Your task to perform on an android device: turn on the 12-hour format for clock Image 0: 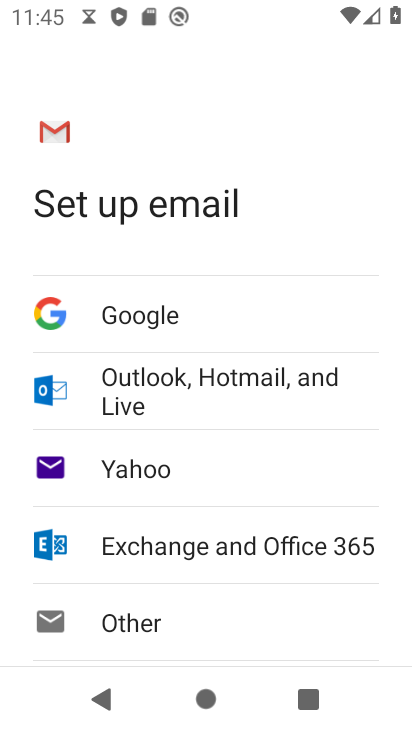
Step 0: press home button
Your task to perform on an android device: turn on the 12-hour format for clock Image 1: 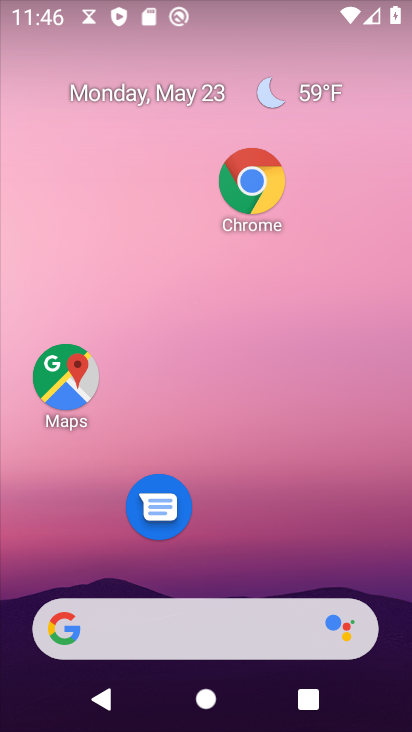
Step 1: drag from (343, 430) to (288, 524)
Your task to perform on an android device: turn on the 12-hour format for clock Image 2: 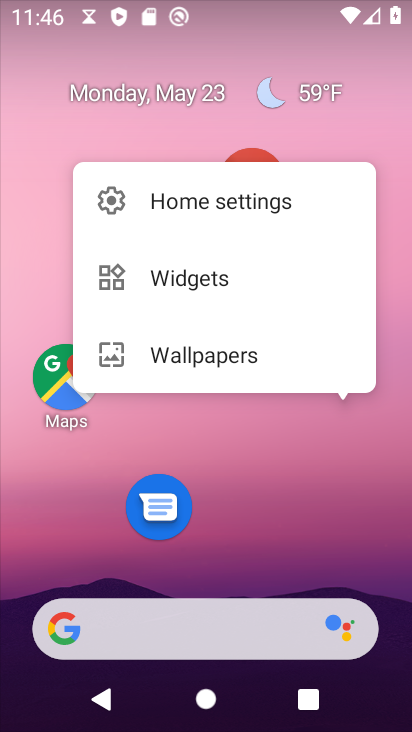
Step 2: click (263, 548)
Your task to perform on an android device: turn on the 12-hour format for clock Image 3: 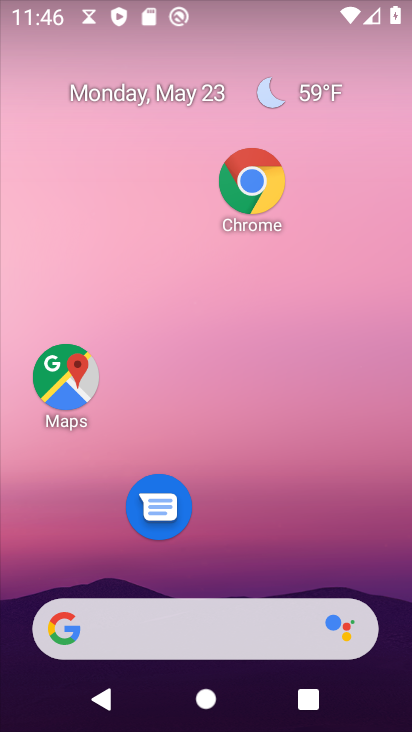
Step 3: click (277, 525)
Your task to perform on an android device: turn on the 12-hour format for clock Image 4: 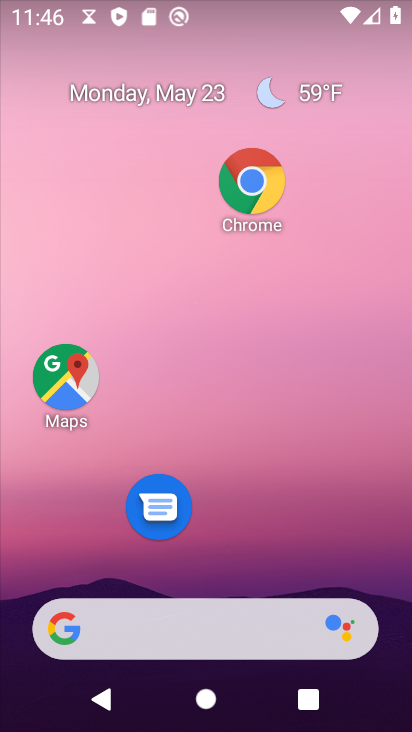
Step 4: drag from (250, 513) to (272, 106)
Your task to perform on an android device: turn on the 12-hour format for clock Image 5: 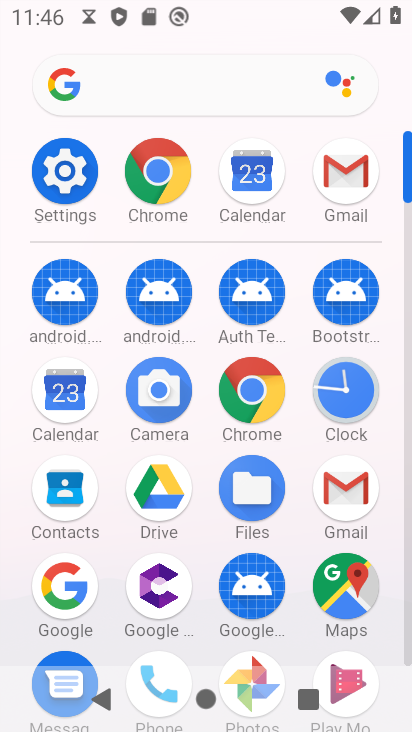
Step 5: click (349, 399)
Your task to perform on an android device: turn on the 12-hour format for clock Image 6: 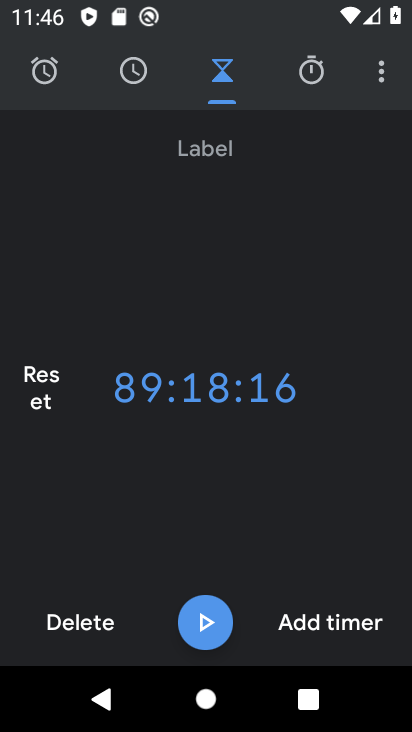
Step 6: click (377, 79)
Your task to perform on an android device: turn on the 12-hour format for clock Image 7: 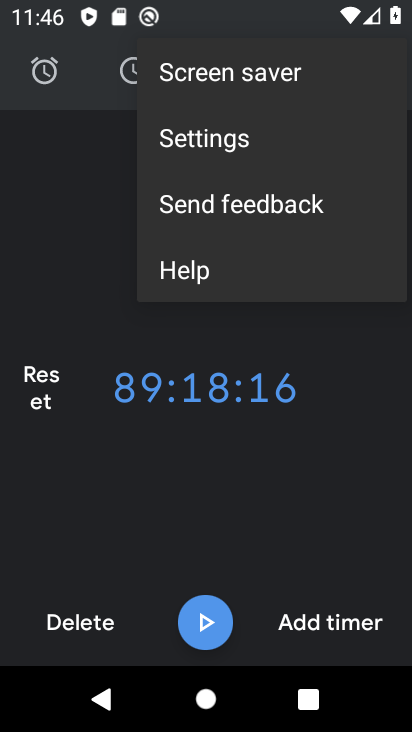
Step 7: click (262, 131)
Your task to perform on an android device: turn on the 12-hour format for clock Image 8: 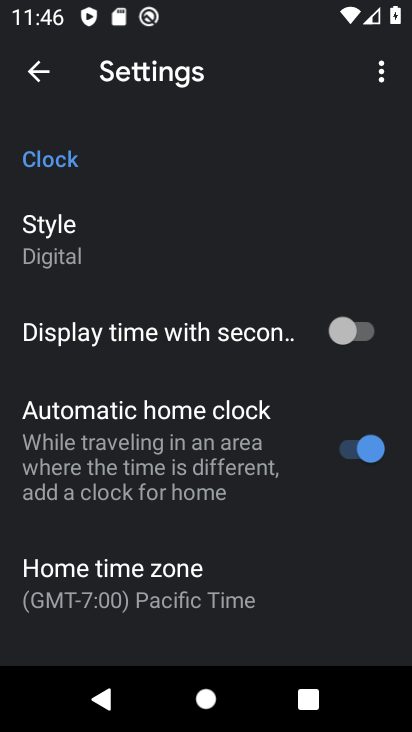
Step 8: drag from (201, 549) to (225, 395)
Your task to perform on an android device: turn on the 12-hour format for clock Image 9: 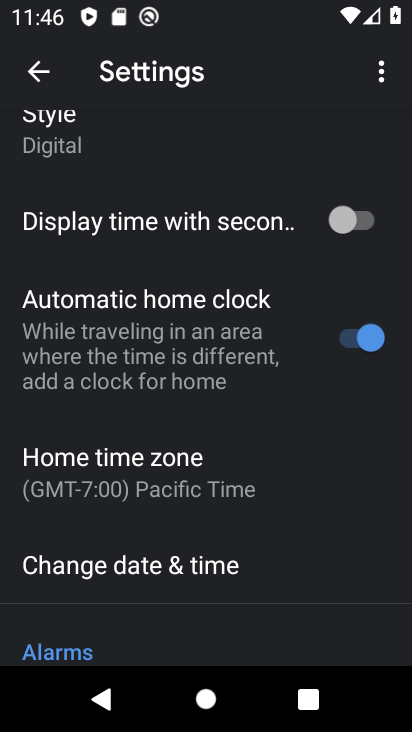
Step 9: click (195, 548)
Your task to perform on an android device: turn on the 12-hour format for clock Image 10: 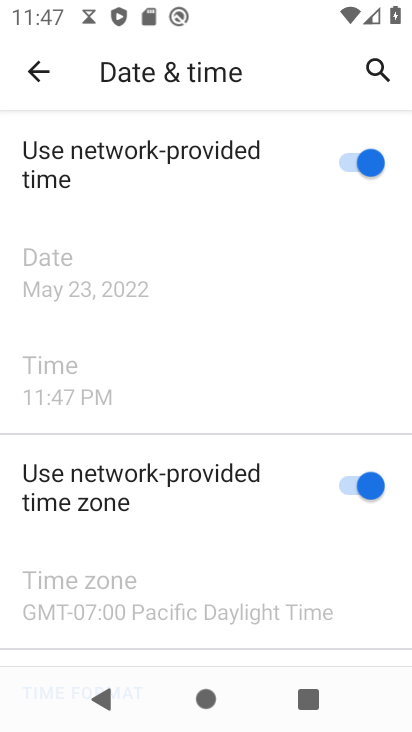
Step 10: drag from (269, 578) to (266, 408)
Your task to perform on an android device: turn on the 12-hour format for clock Image 11: 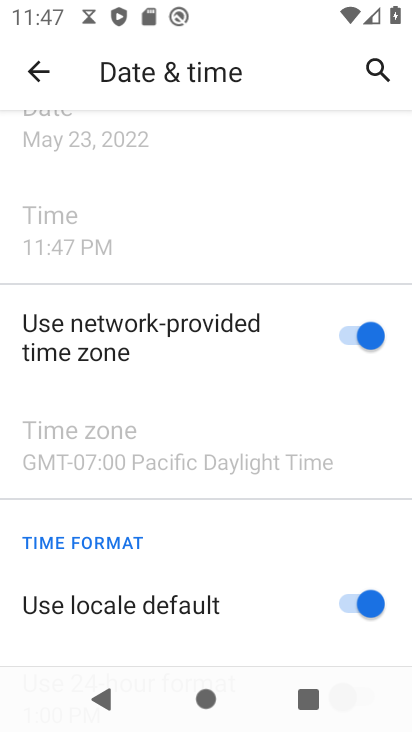
Step 11: drag from (290, 498) to (274, 333)
Your task to perform on an android device: turn on the 12-hour format for clock Image 12: 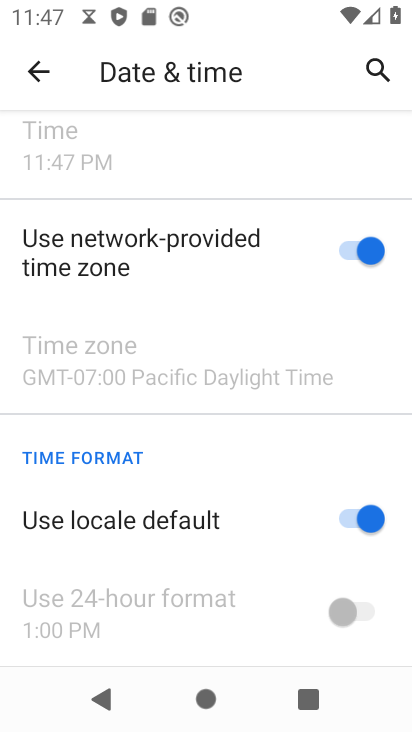
Step 12: click (335, 518)
Your task to perform on an android device: turn on the 12-hour format for clock Image 13: 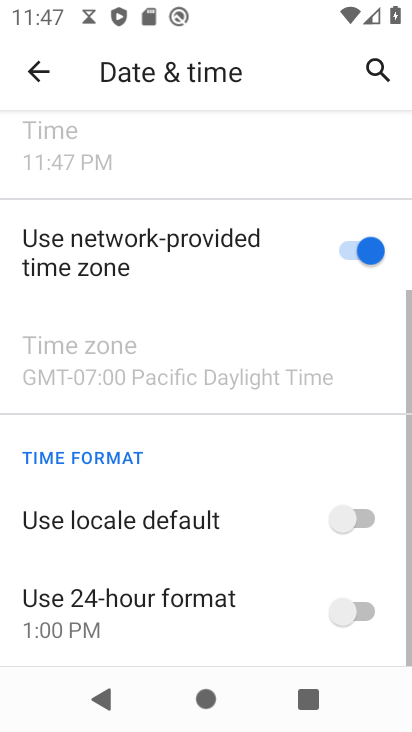
Step 13: click (361, 602)
Your task to perform on an android device: turn on the 12-hour format for clock Image 14: 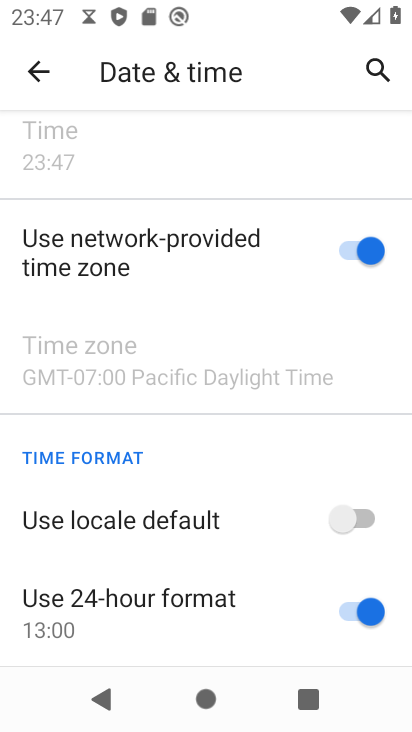
Step 14: task complete